Your task to perform on an android device: change the upload size in google photos Image 0: 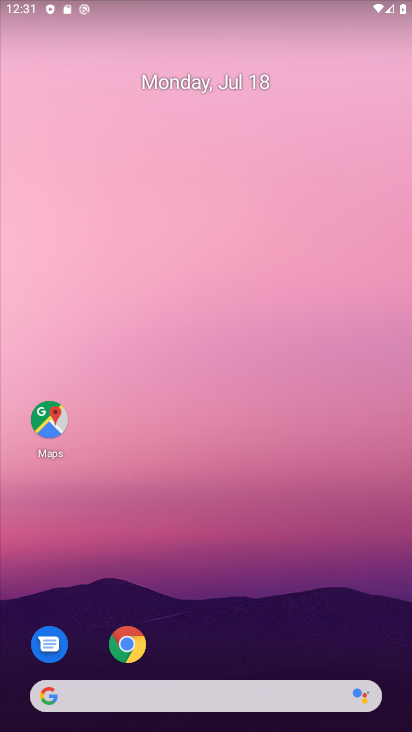
Step 0: press home button
Your task to perform on an android device: change the upload size in google photos Image 1: 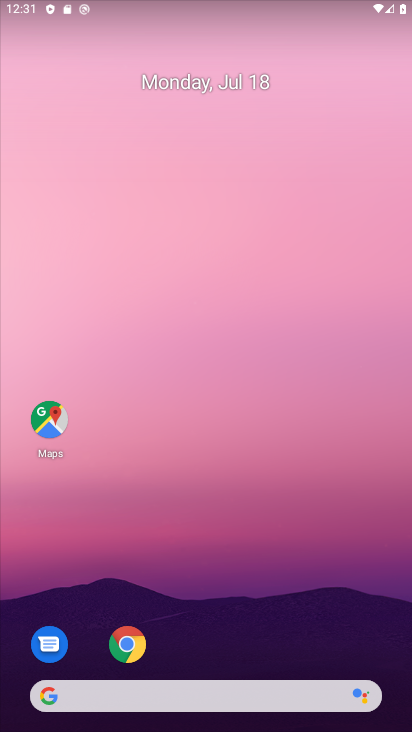
Step 1: drag from (348, 586) to (358, 173)
Your task to perform on an android device: change the upload size in google photos Image 2: 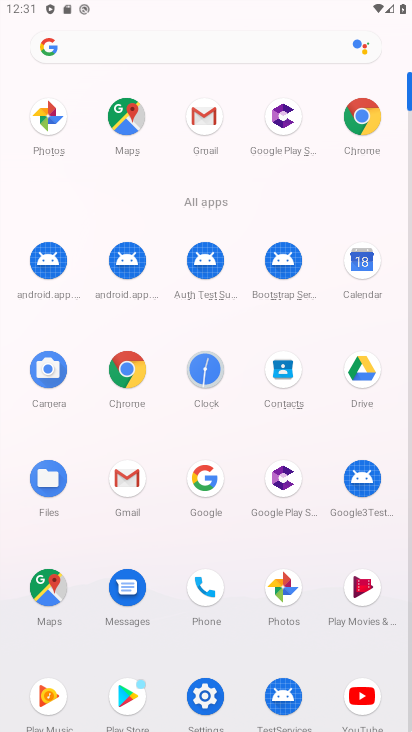
Step 2: click (283, 582)
Your task to perform on an android device: change the upload size in google photos Image 3: 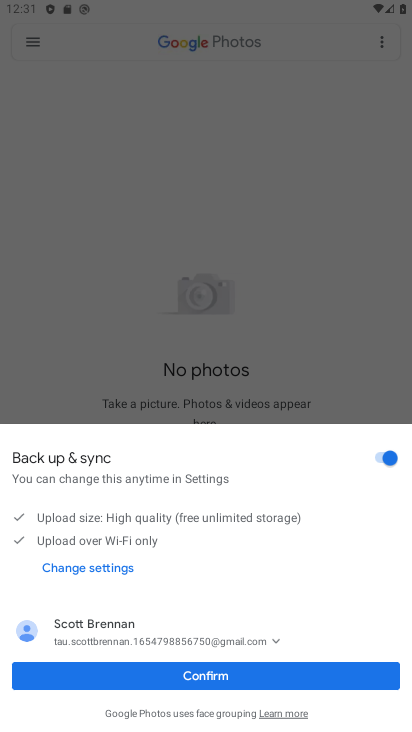
Step 3: click (90, 678)
Your task to perform on an android device: change the upload size in google photos Image 4: 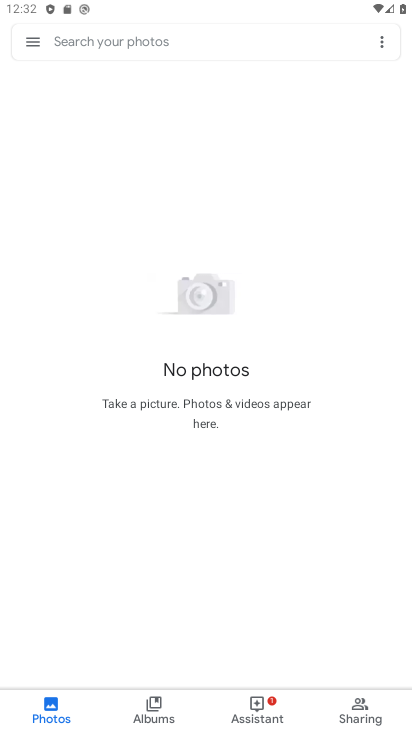
Step 4: click (23, 37)
Your task to perform on an android device: change the upload size in google photos Image 5: 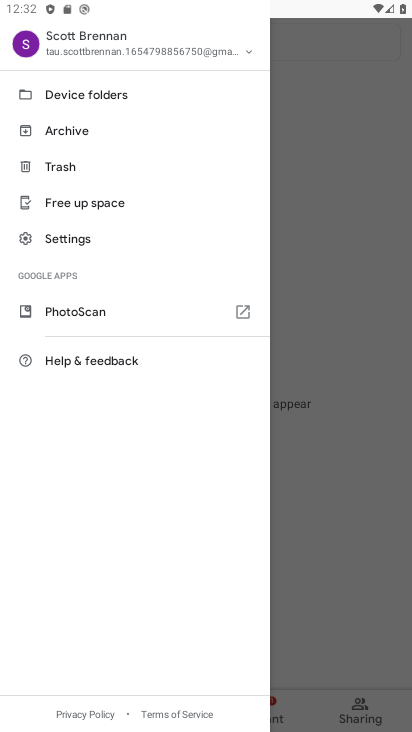
Step 5: click (64, 246)
Your task to perform on an android device: change the upload size in google photos Image 6: 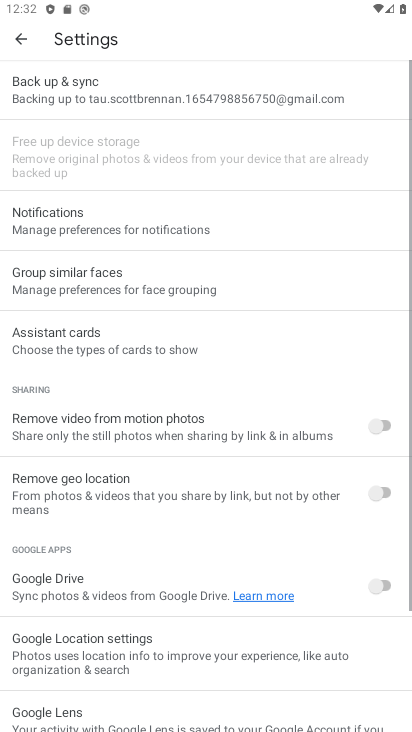
Step 6: click (128, 99)
Your task to perform on an android device: change the upload size in google photos Image 7: 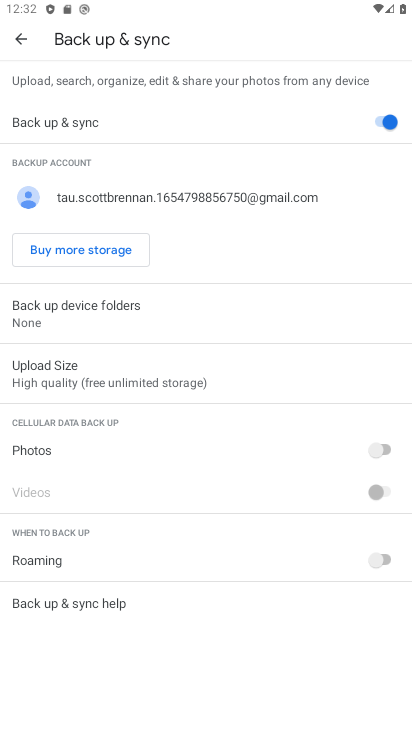
Step 7: click (57, 377)
Your task to perform on an android device: change the upload size in google photos Image 8: 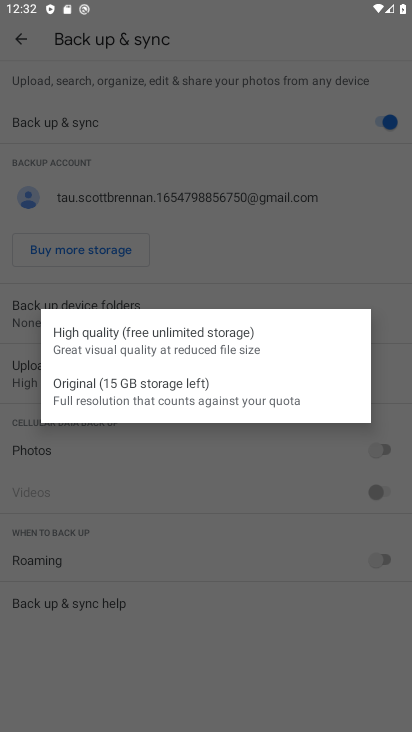
Step 8: click (84, 389)
Your task to perform on an android device: change the upload size in google photos Image 9: 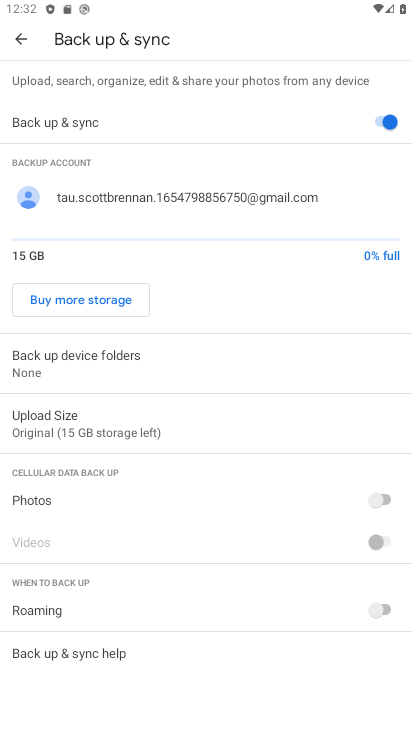
Step 9: task complete